Your task to perform on an android device: check data usage Image 0: 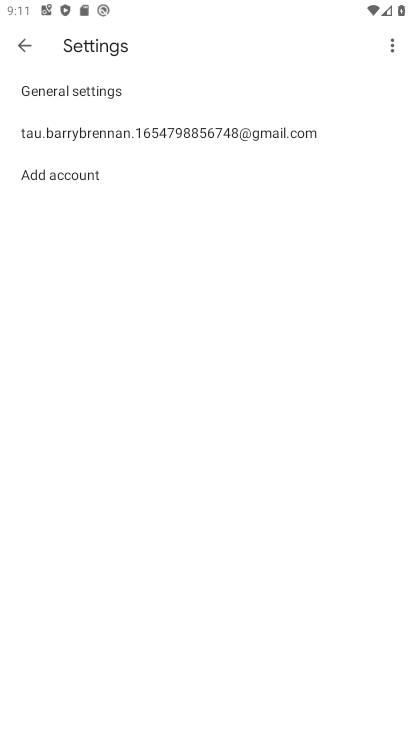
Step 0: press home button
Your task to perform on an android device: check data usage Image 1: 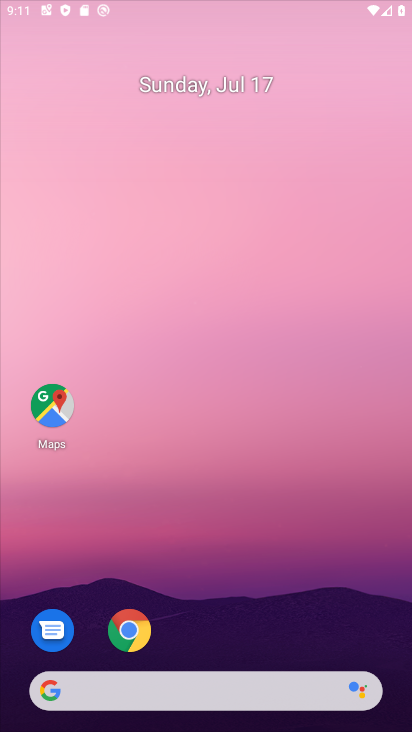
Step 1: drag from (253, 700) to (261, 2)
Your task to perform on an android device: check data usage Image 2: 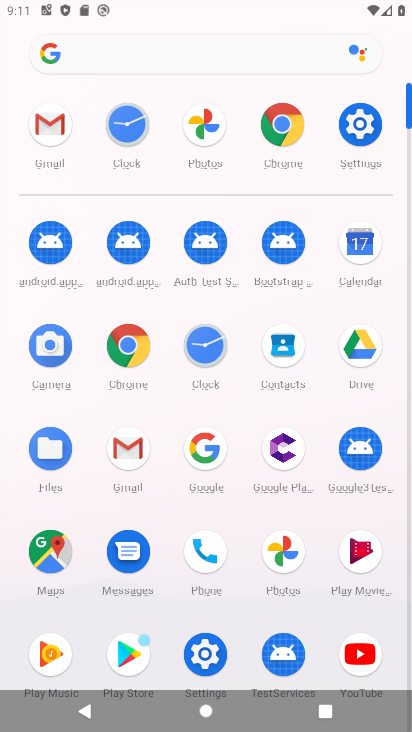
Step 2: click (346, 125)
Your task to perform on an android device: check data usage Image 3: 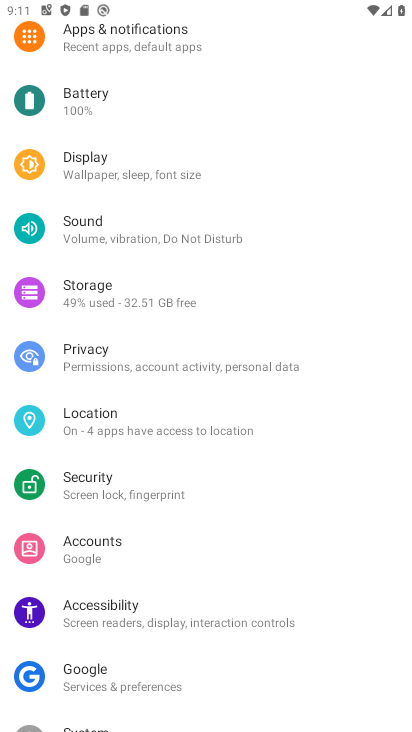
Step 3: drag from (148, 148) to (190, 656)
Your task to perform on an android device: check data usage Image 4: 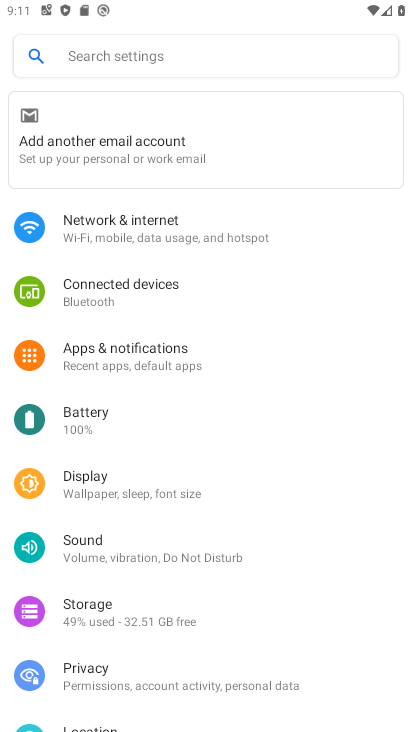
Step 4: click (203, 232)
Your task to perform on an android device: check data usage Image 5: 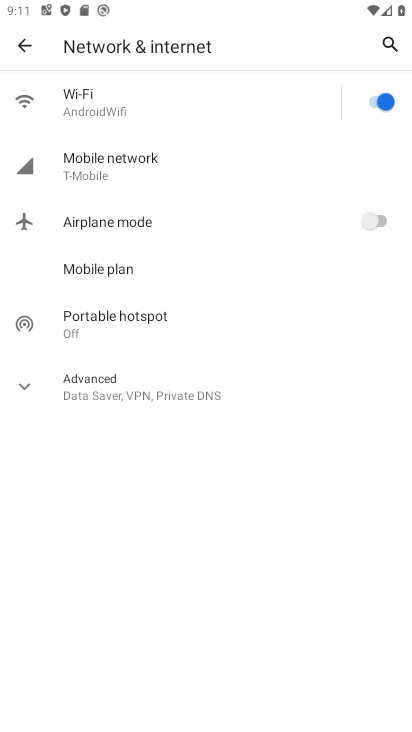
Step 5: click (133, 157)
Your task to perform on an android device: check data usage Image 6: 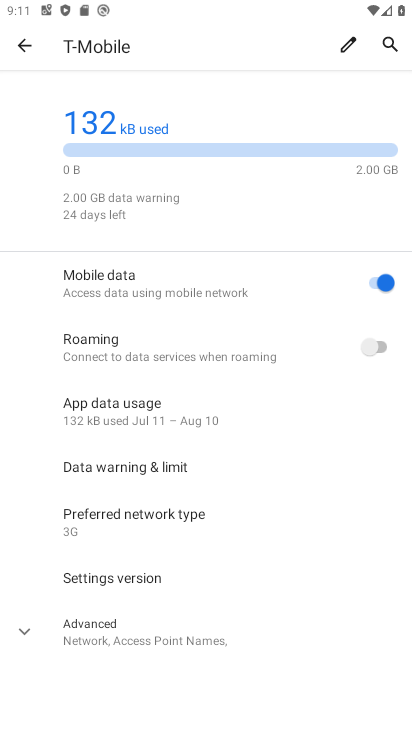
Step 6: task complete